Your task to perform on an android device: open app "Facebook" (install if not already installed) Image 0: 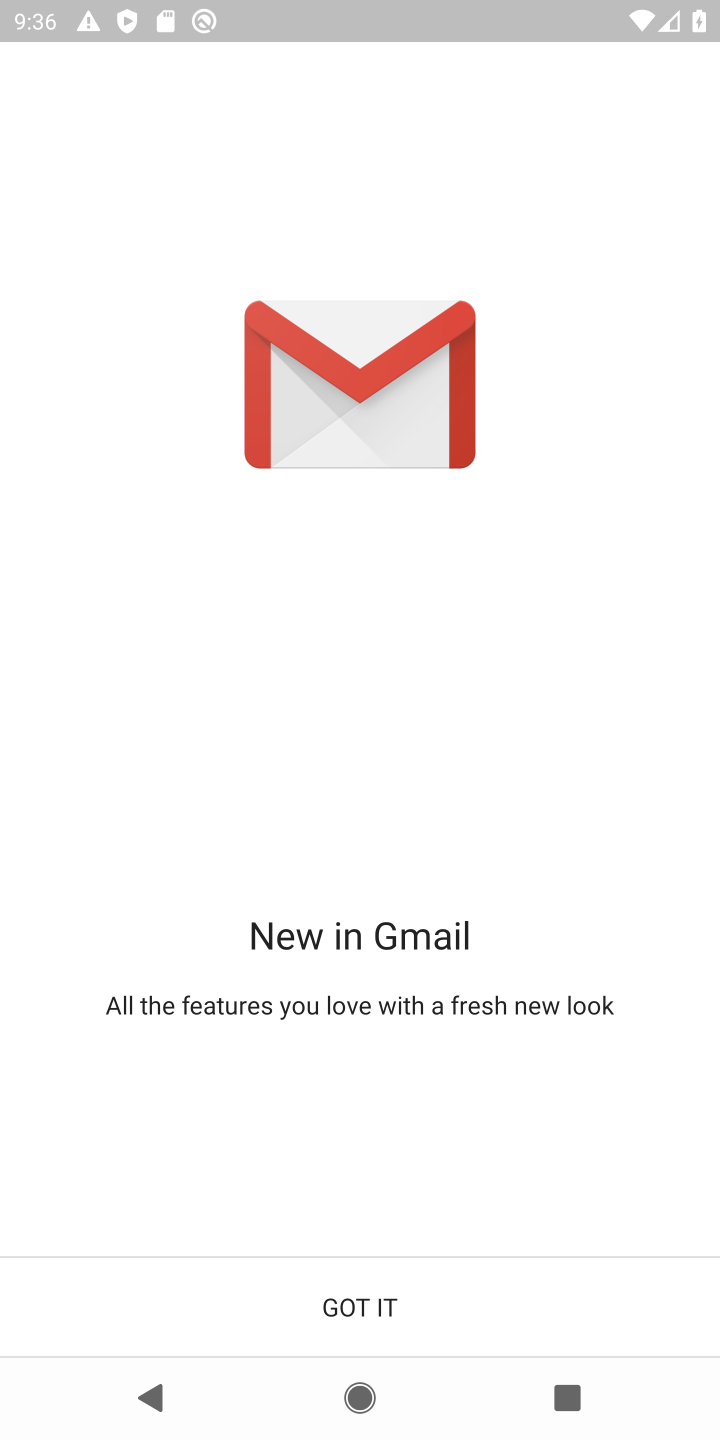
Step 0: press home button
Your task to perform on an android device: open app "Facebook" (install if not already installed) Image 1: 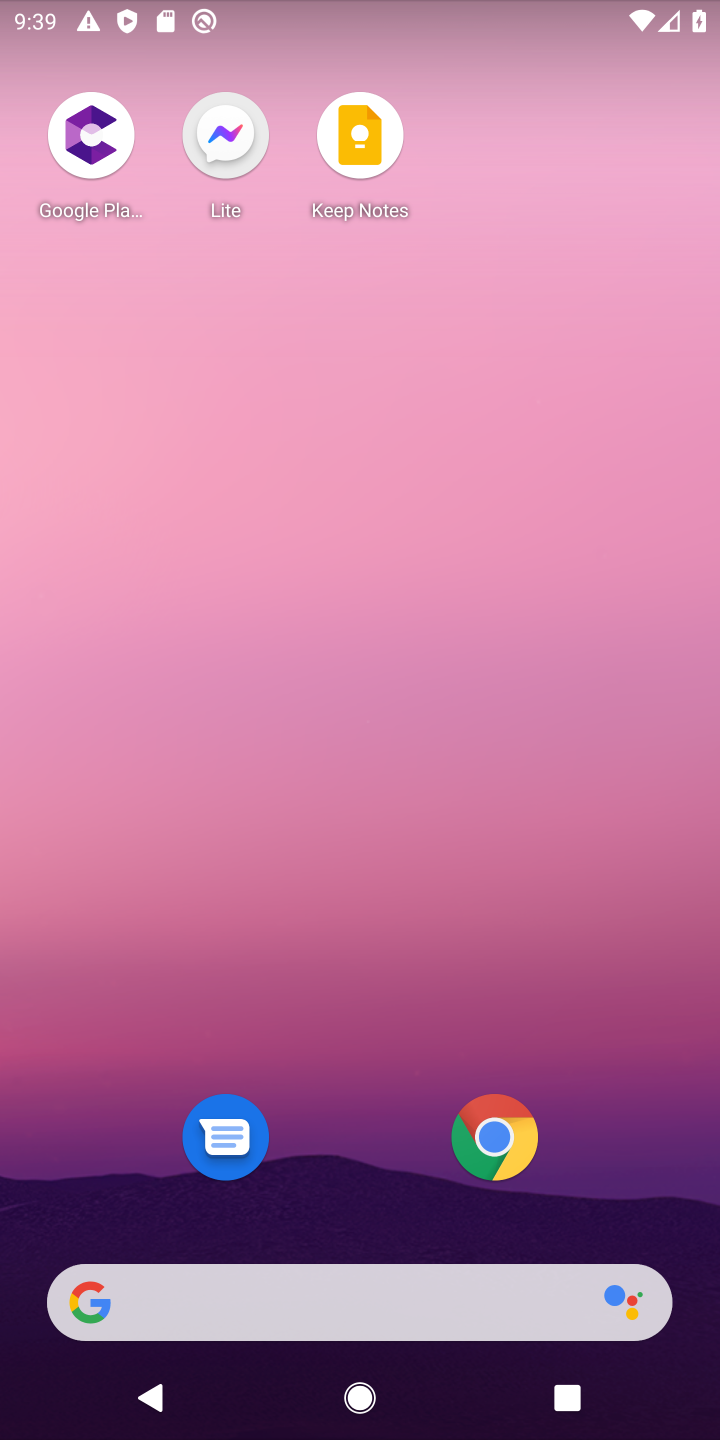
Step 1: drag from (633, 899) to (588, 21)
Your task to perform on an android device: open app "Facebook" (install if not already installed) Image 2: 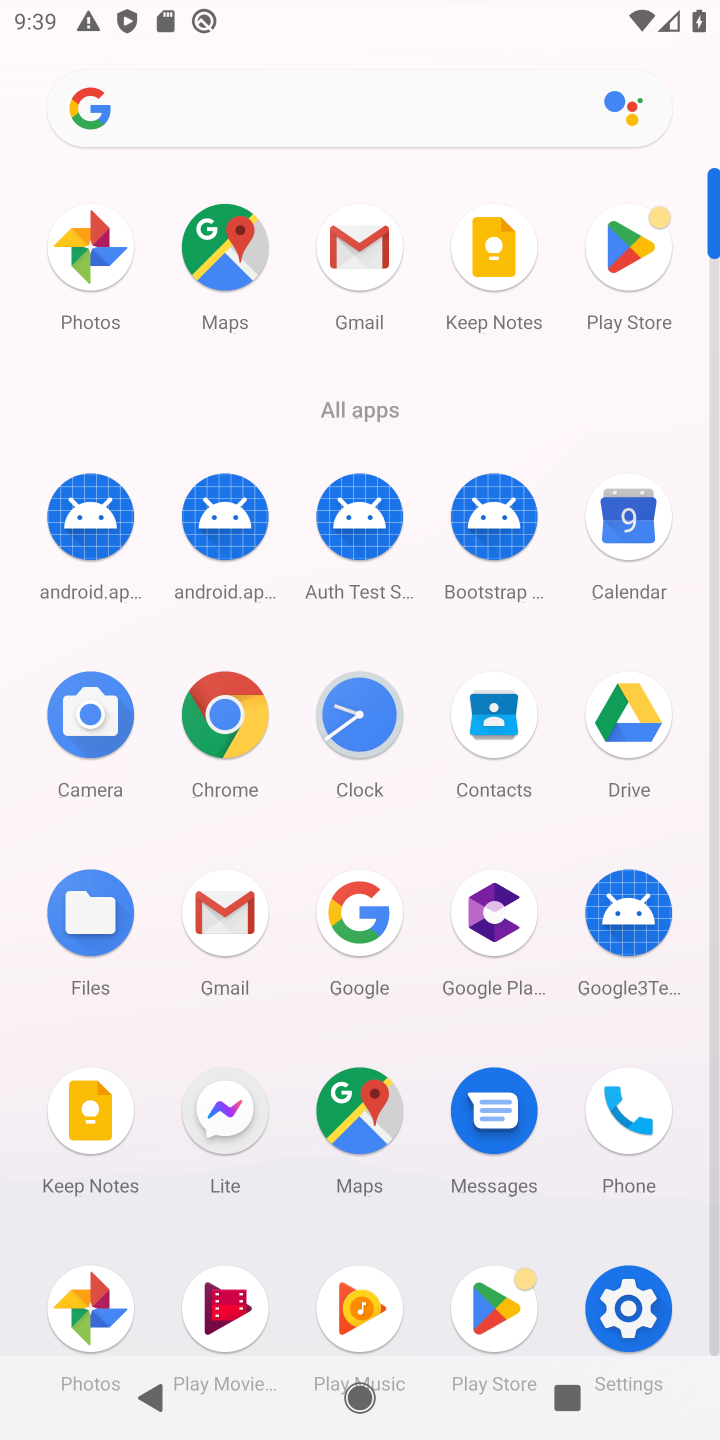
Step 2: click (629, 225)
Your task to perform on an android device: open app "Facebook" (install if not already installed) Image 3: 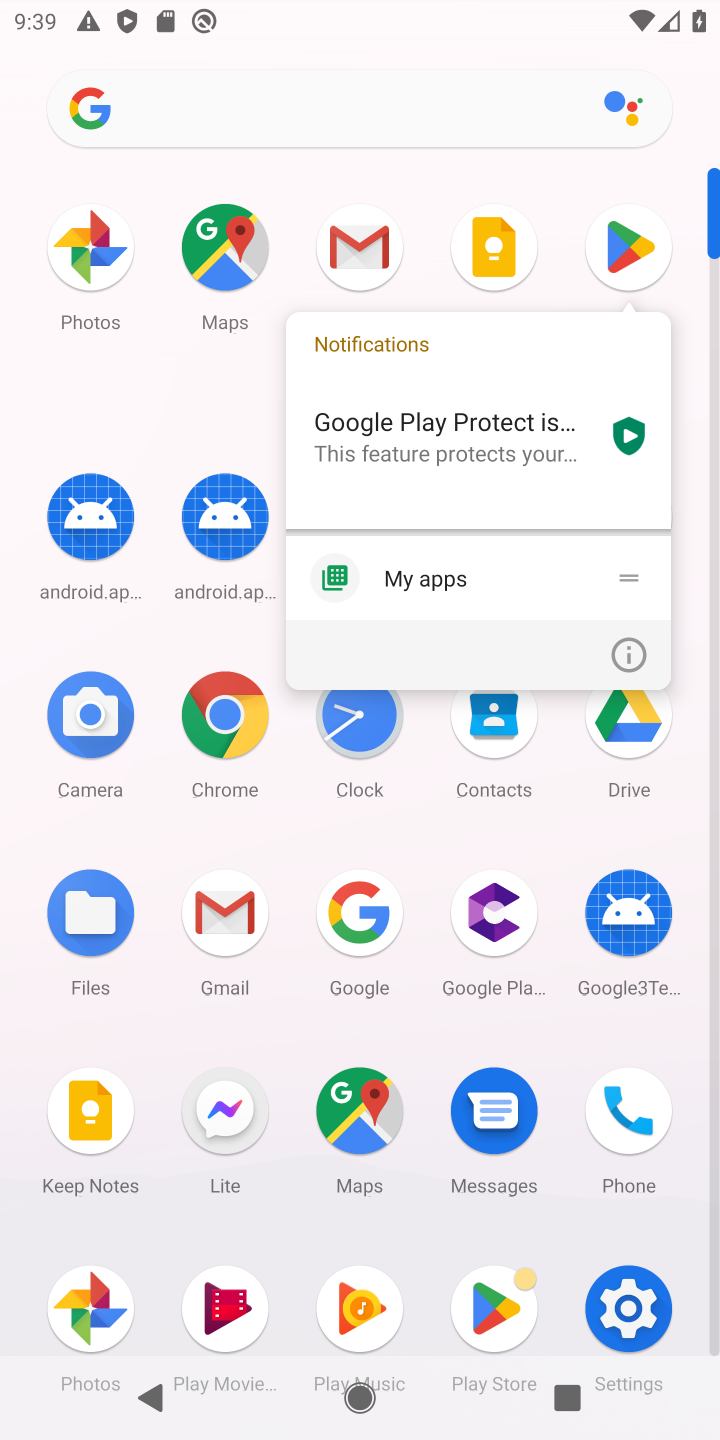
Step 3: click (621, 255)
Your task to perform on an android device: open app "Facebook" (install if not already installed) Image 4: 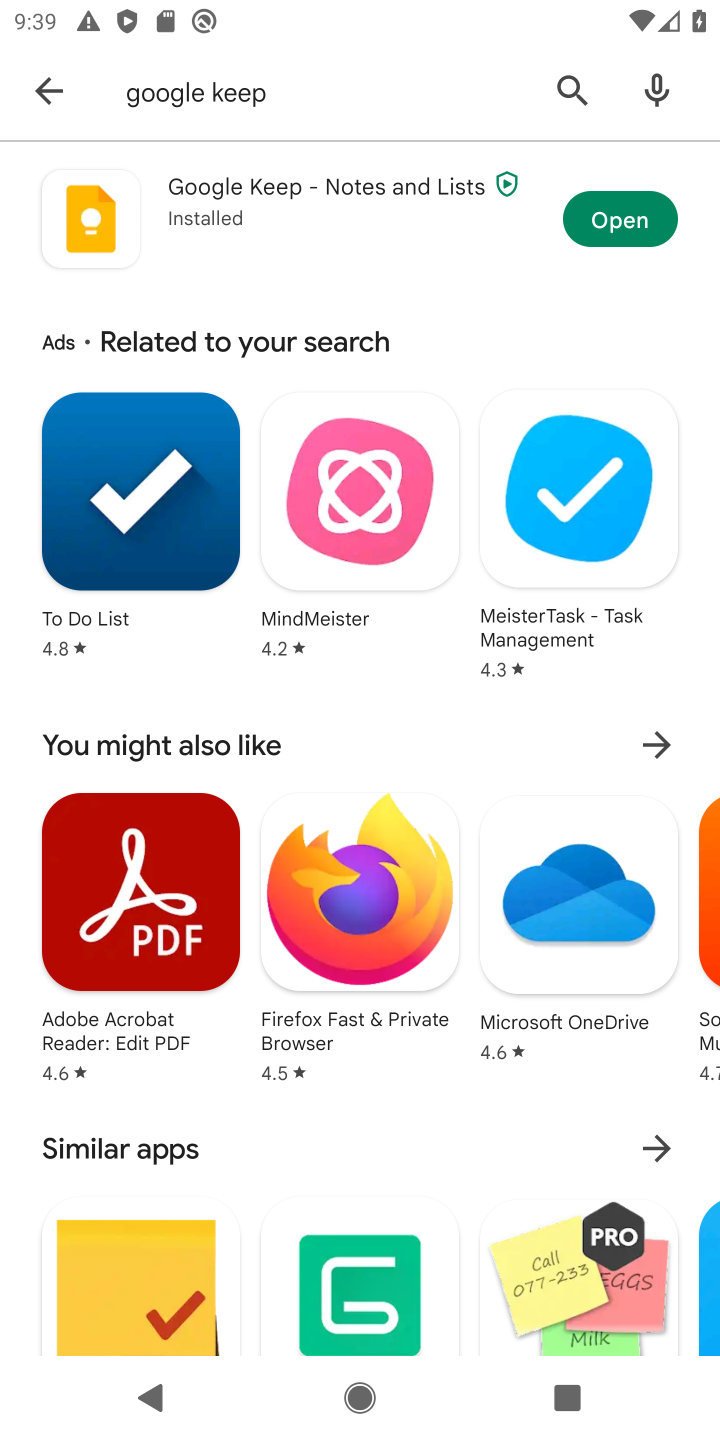
Step 4: press back button
Your task to perform on an android device: open app "Facebook" (install if not already installed) Image 5: 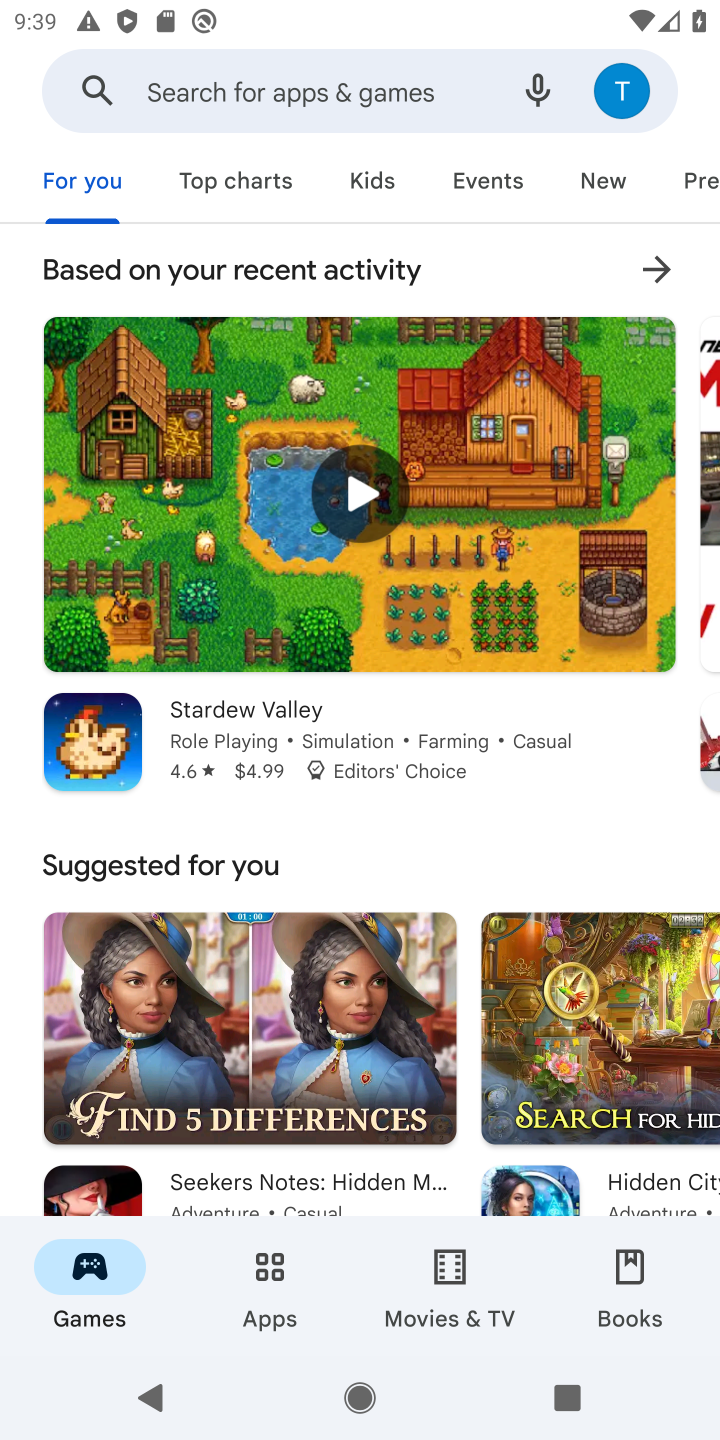
Step 5: click (194, 83)
Your task to perform on an android device: open app "Facebook" (install if not already installed) Image 6: 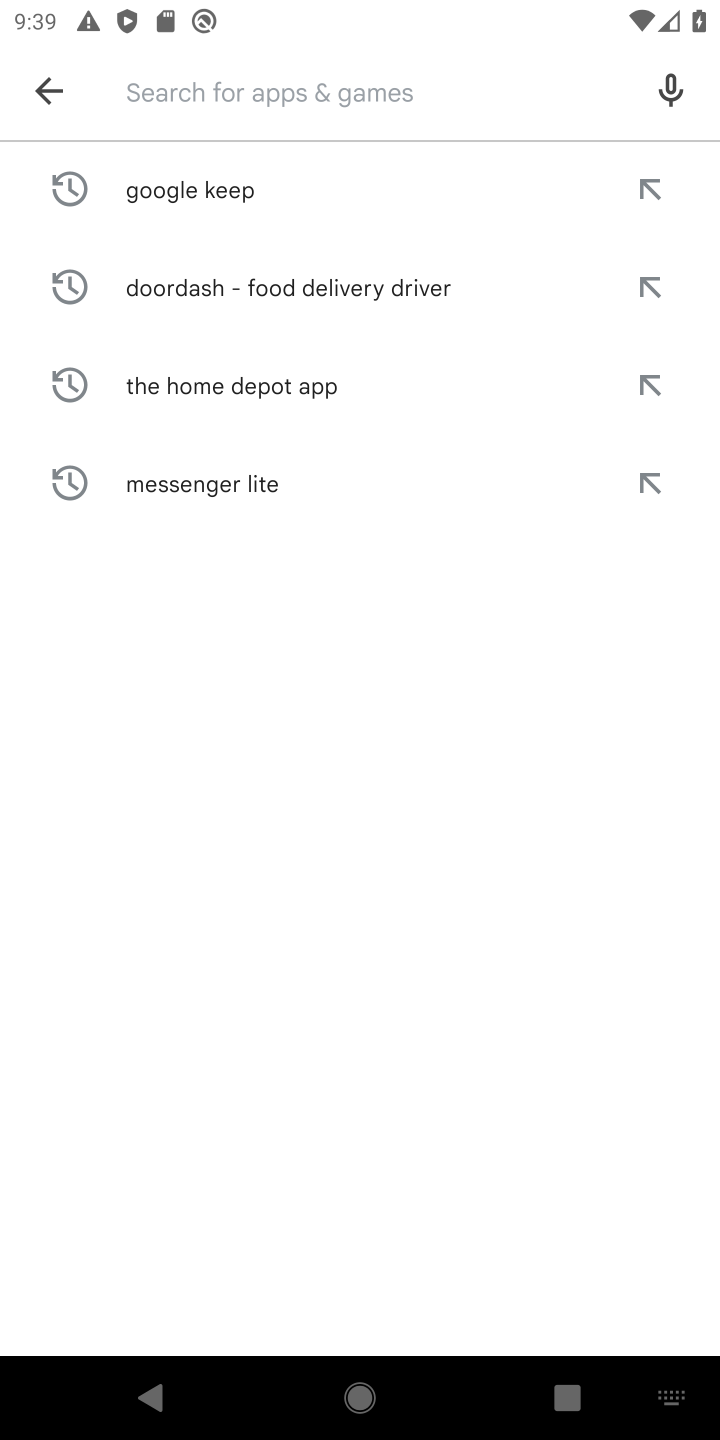
Step 6: type "Facebook"
Your task to perform on an android device: open app "Facebook" (install if not already installed) Image 7: 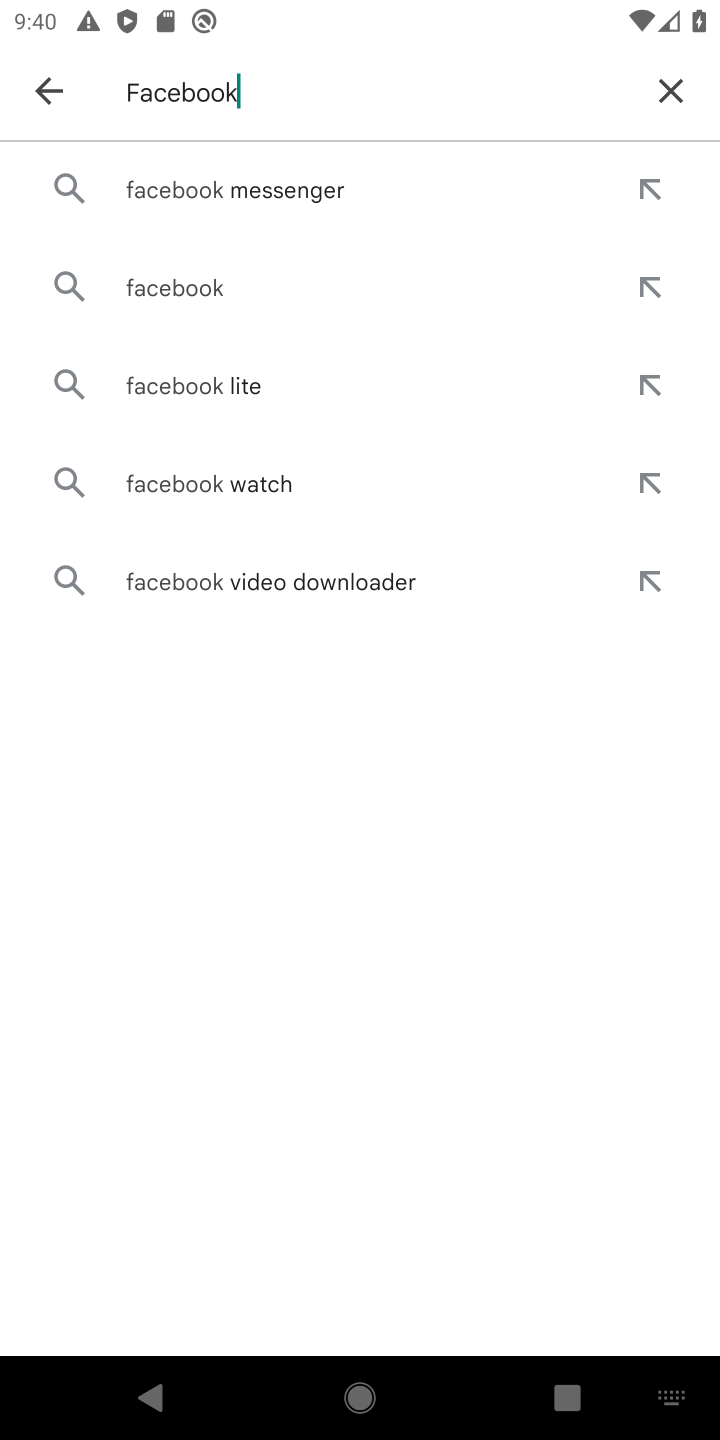
Step 7: click (138, 304)
Your task to perform on an android device: open app "Facebook" (install if not already installed) Image 8: 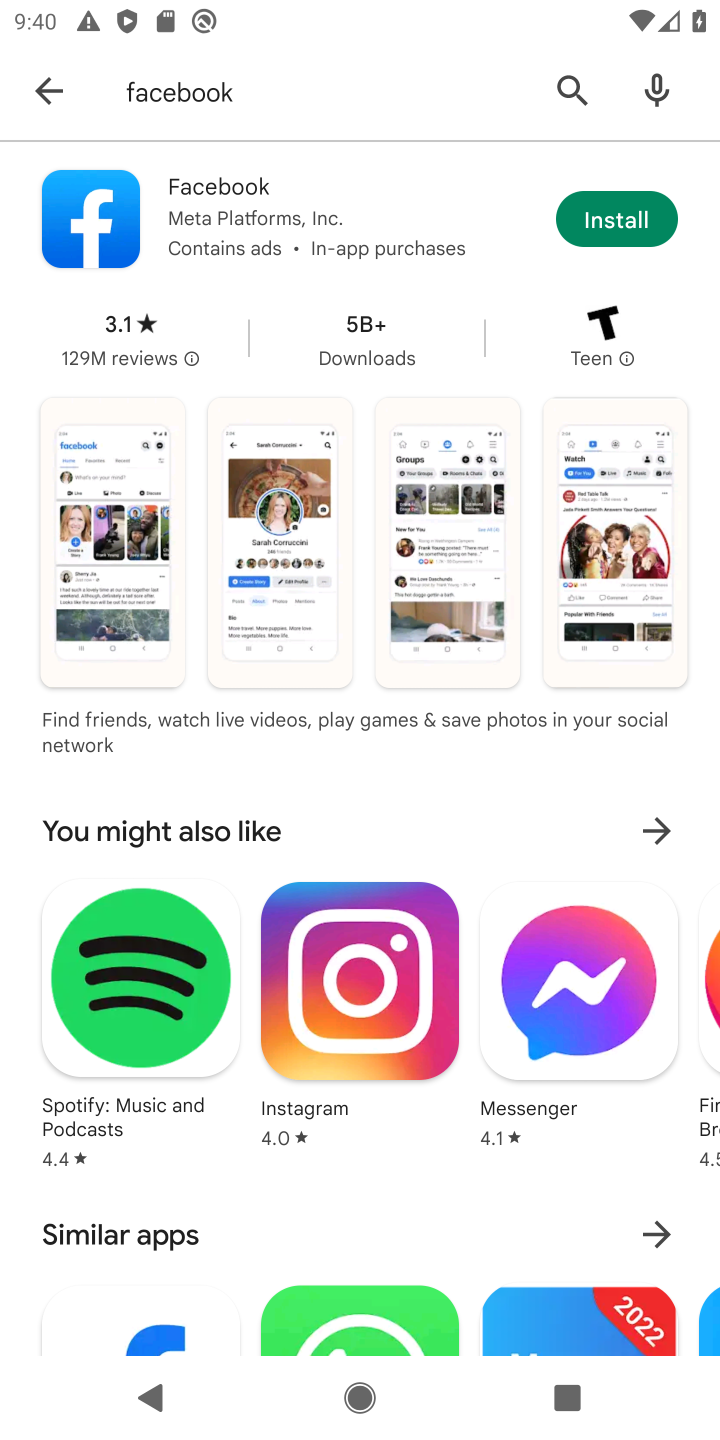
Step 8: task complete